Your task to perform on an android device: Play the last video I watched on Youtube Image 0: 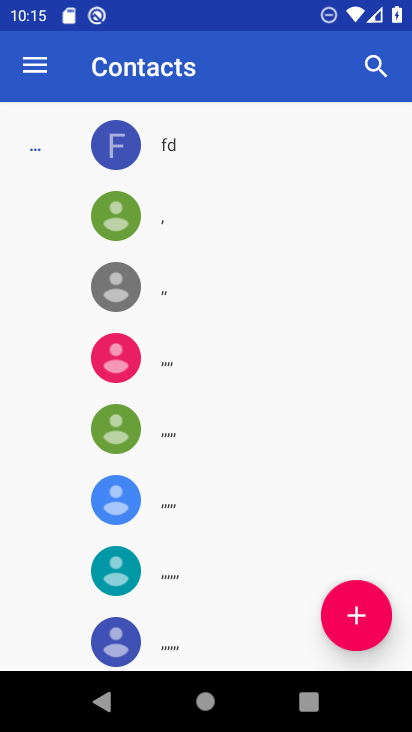
Step 0: press home button
Your task to perform on an android device: Play the last video I watched on Youtube Image 1: 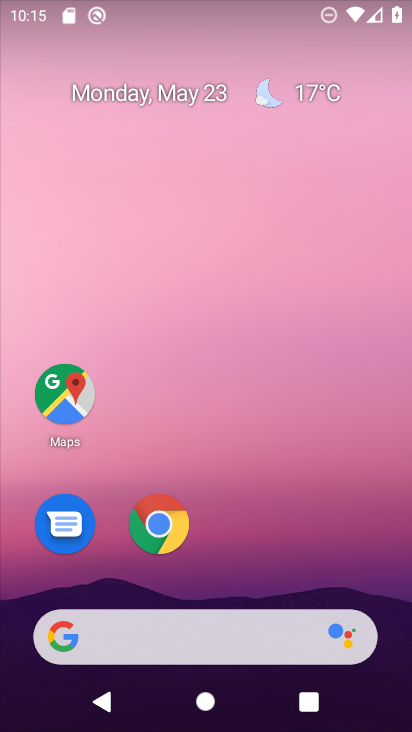
Step 1: drag from (225, 565) to (237, 30)
Your task to perform on an android device: Play the last video I watched on Youtube Image 2: 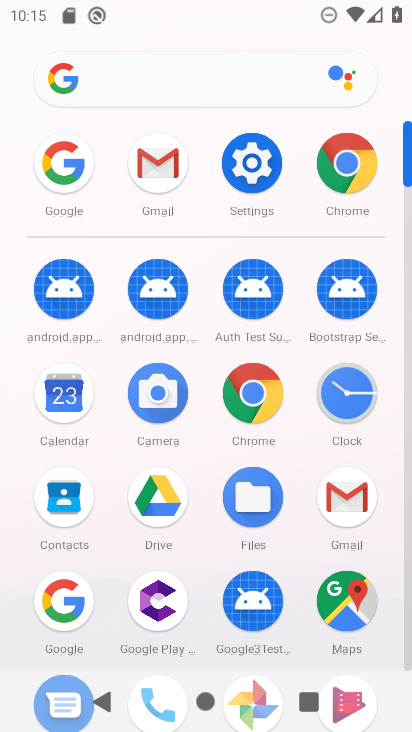
Step 2: drag from (146, 571) to (267, 156)
Your task to perform on an android device: Play the last video I watched on Youtube Image 3: 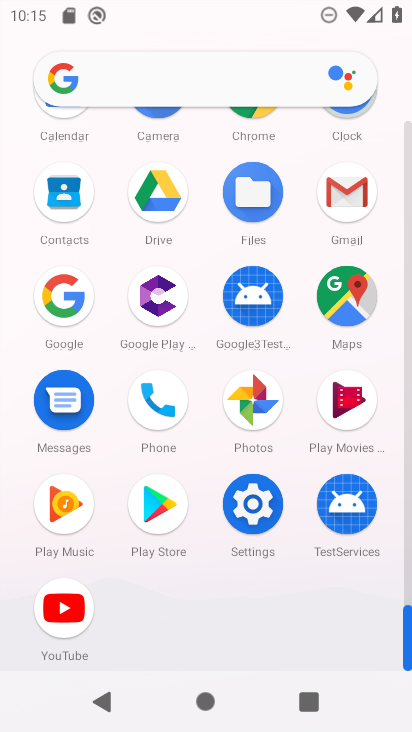
Step 3: click (73, 605)
Your task to perform on an android device: Play the last video I watched on Youtube Image 4: 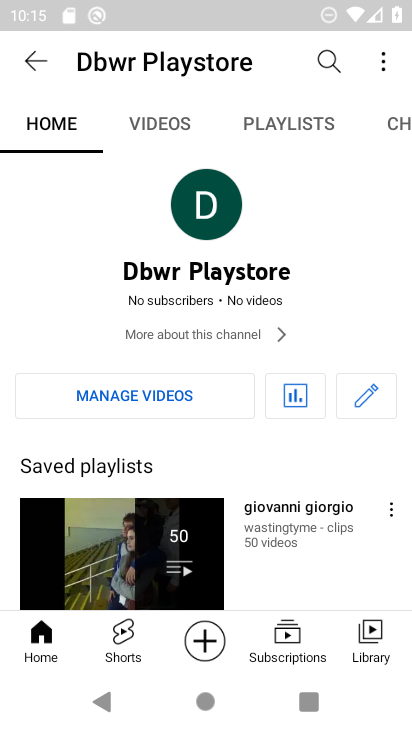
Step 4: task complete